Your task to perform on an android device: turn on the 12-hour format for clock Image 0: 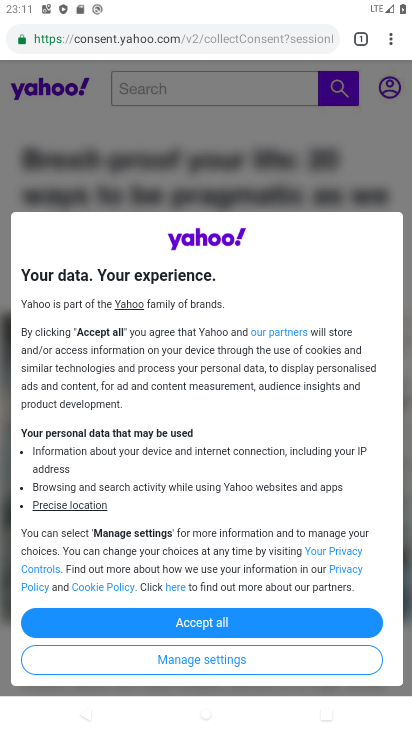
Step 0: press home button
Your task to perform on an android device: turn on the 12-hour format for clock Image 1: 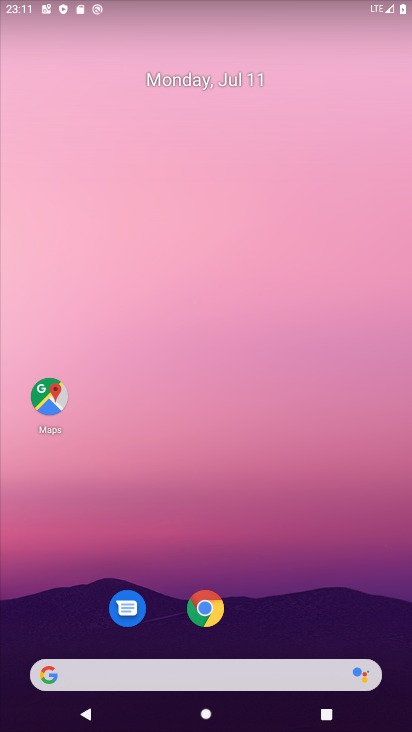
Step 1: drag from (49, 709) to (390, 336)
Your task to perform on an android device: turn on the 12-hour format for clock Image 2: 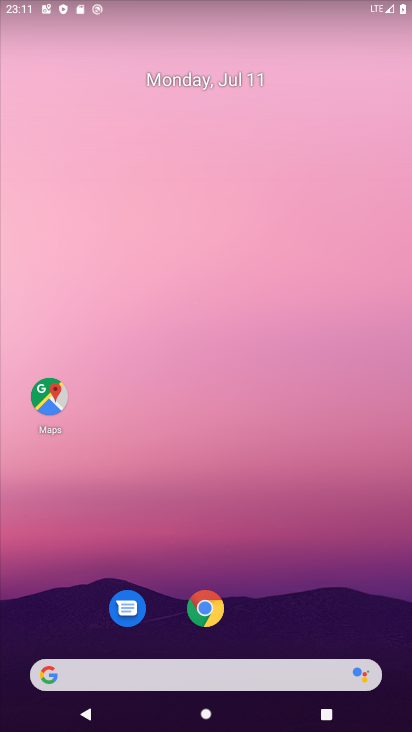
Step 2: drag from (0, 700) to (323, 3)
Your task to perform on an android device: turn on the 12-hour format for clock Image 3: 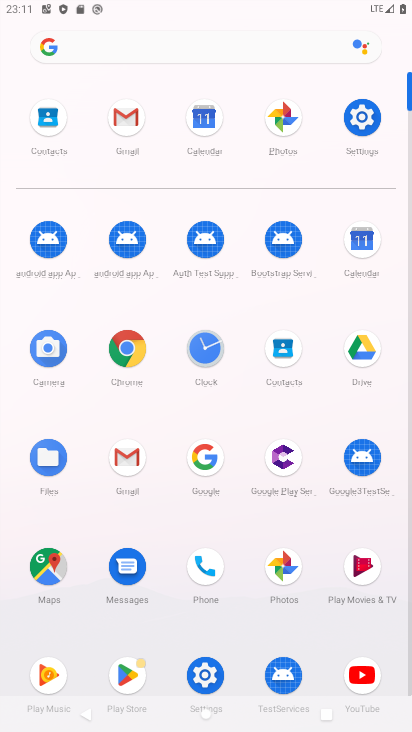
Step 3: click (212, 362)
Your task to perform on an android device: turn on the 12-hour format for clock Image 4: 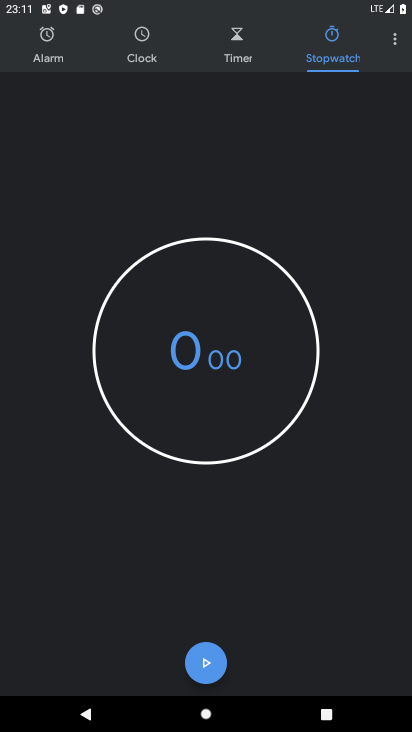
Step 4: click (147, 32)
Your task to perform on an android device: turn on the 12-hour format for clock Image 5: 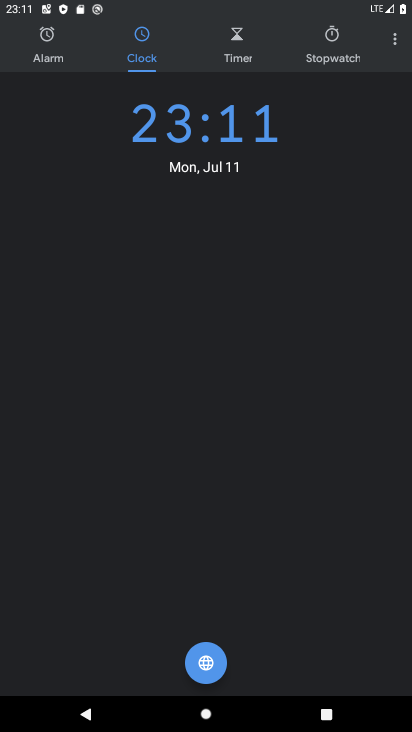
Step 5: click (391, 31)
Your task to perform on an android device: turn on the 12-hour format for clock Image 6: 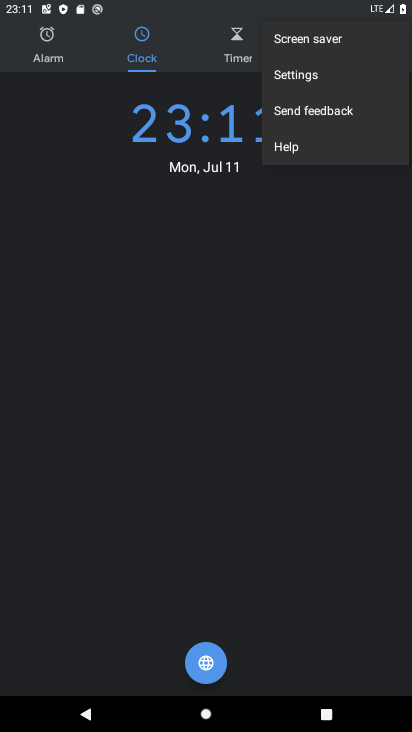
Step 6: click (322, 82)
Your task to perform on an android device: turn on the 12-hour format for clock Image 7: 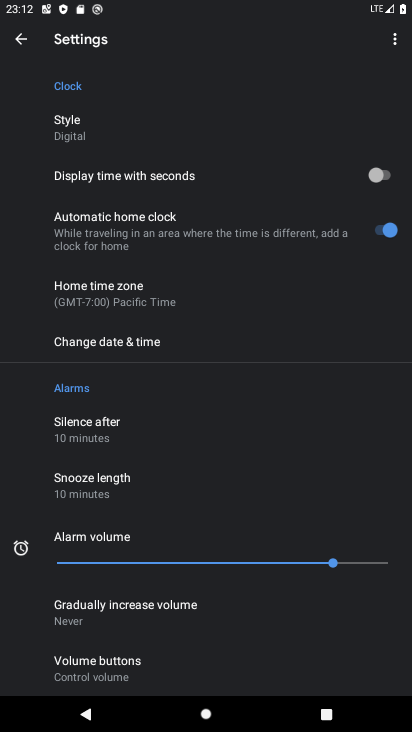
Step 7: click (154, 341)
Your task to perform on an android device: turn on the 12-hour format for clock Image 8: 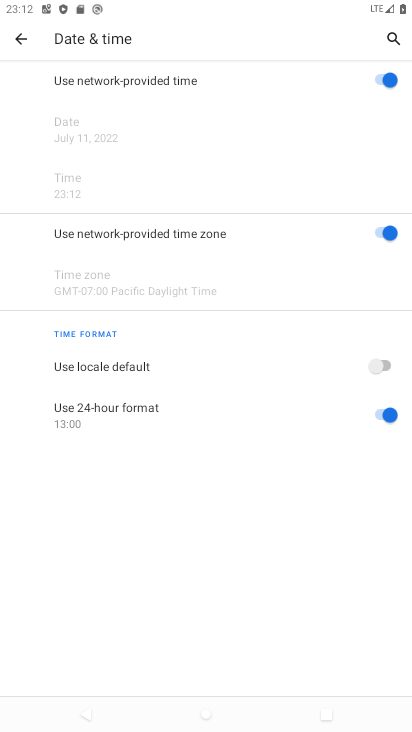
Step 8: click (387, 413)
Your task to perform on an android device: turn on the 12-hour format for clock Image 9: 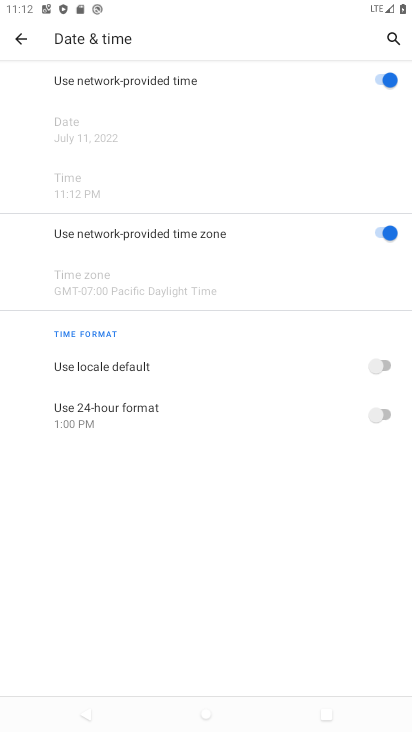
Step 9: click (378, 363)
Your task to perform on an android device: turn on the 12-hour format for clock Image 10: 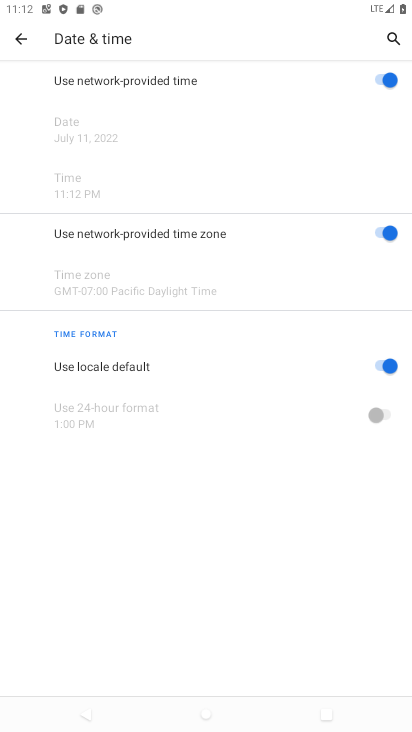
Step 10: click (385, 364)
Your task to perform on an android device: turn on the 12-hour format for clock Image 11: 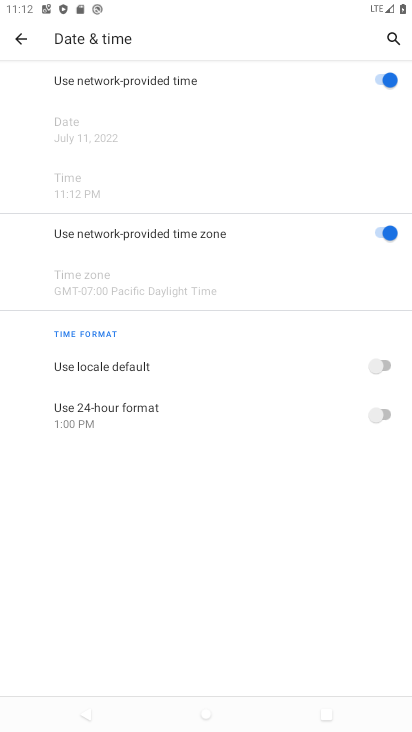
Step 11: task complete